Your task to perform on an android device: toggle pop-ups in chrome Image 0: 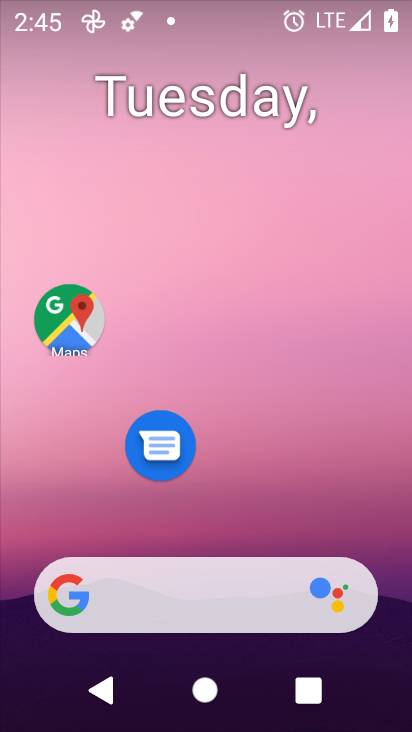
Step 0: drag from (239, 499) to (151, 102)
Your task to perform on an android device: toggle pop-ups in chrome Image 1: 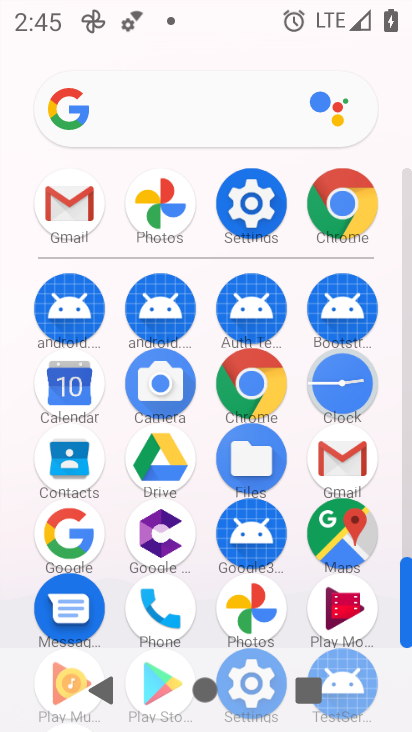
Step 1: click (341, 192)
Your task to perform on an android device: toggle pop-ups in chrome Image 2: 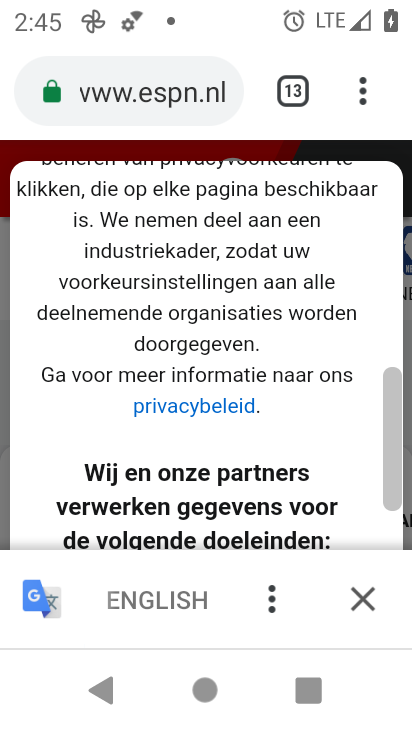
Step 2: click (359, 95)
Your task to perform on an android device: toggle pop-ups in chrome Image 3: 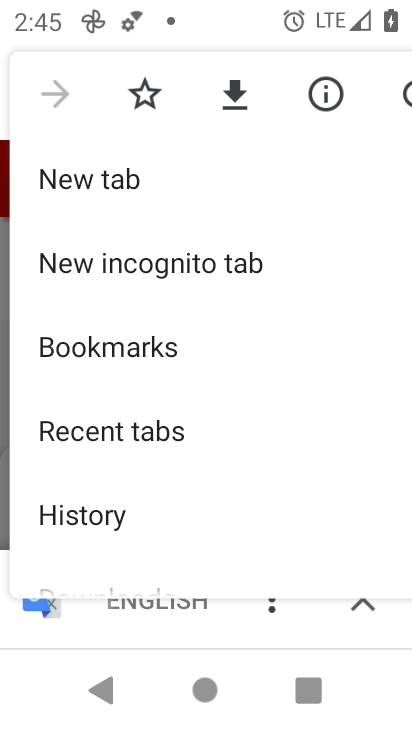
Step 3: drag from (251, 515) to (189, 231)
Your task to perform on an android device: toggle pop-ups in chrome Image 4: 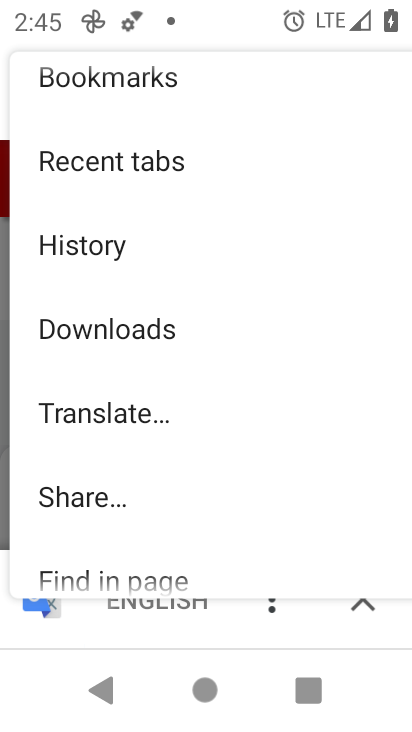
Step 4: drag from (214, 482) to (161, 182)
Your task to perform on an android device: toggle pop-ups in chrome Image 5: 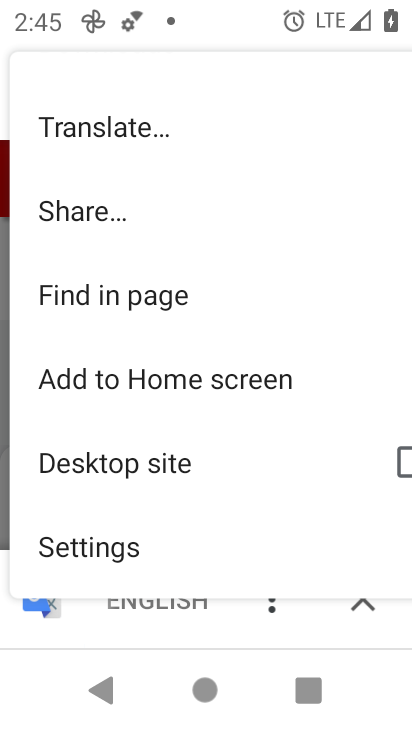
Step 5: click (93, 546)
Your task to perform on an android device: toggle pop-ups in chrome Image 6: 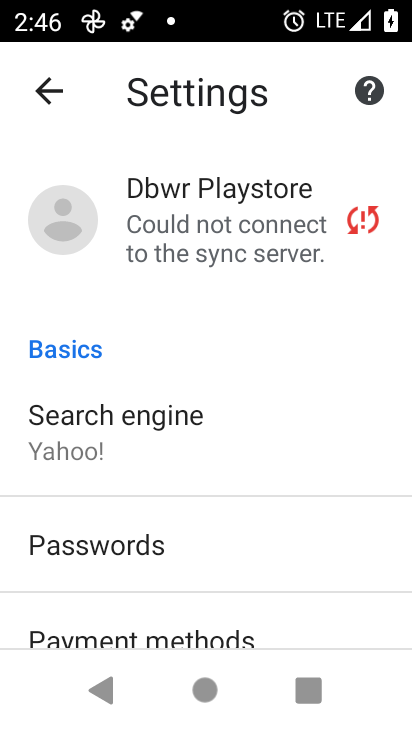
Step 6: drag from (218, 558) to (175, 190)
Your task to perform on an android device: toggle pop-ups in chrome Image 7: 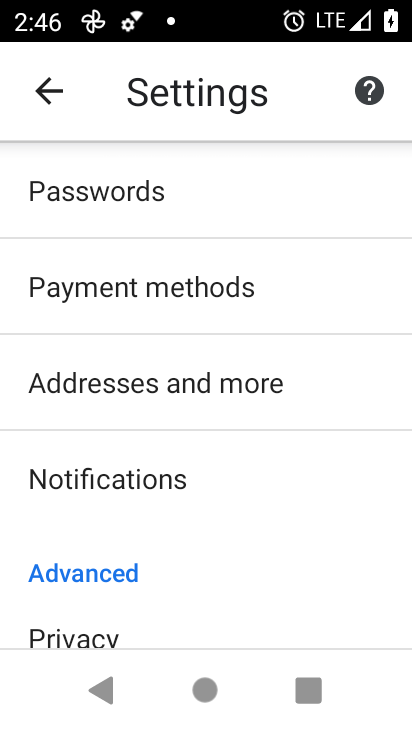
Step 7: drag from (221, 564) to (202, 297)
Your task to perform on an android device: toggle pop-ups in chrome Image 8: 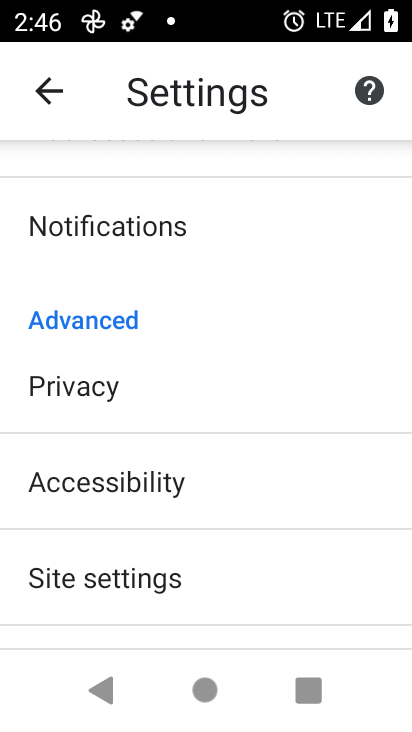
Step 8: click (136, 575)
Your task to perform on an android device: toggle pop-ups in chrome Image 9: 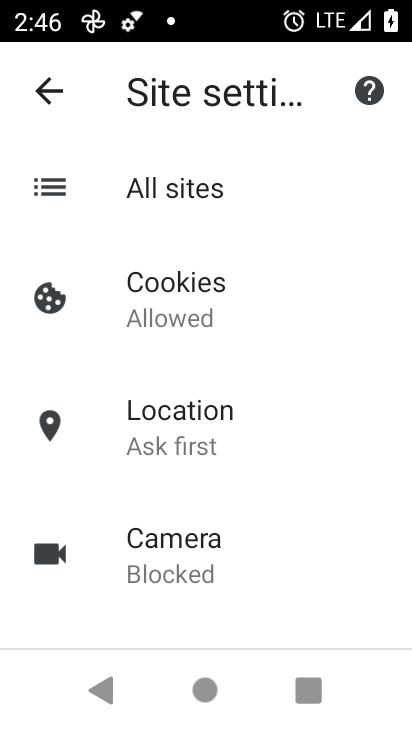
Step 9: drag from (294, 458) to (234, 155)
Your task to perform on an android device: toggle pop-ups in chrome Image 10: 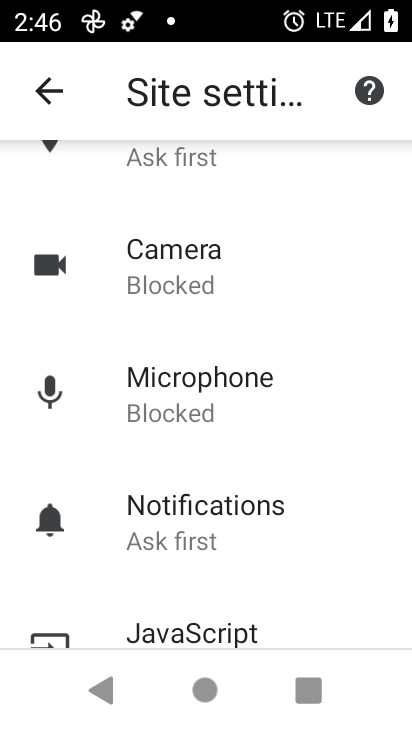
Step 10: drag from (277, 547) to (241, 263)
Your task to perform on an android device: toggle pop-ups in chrome Image 11: 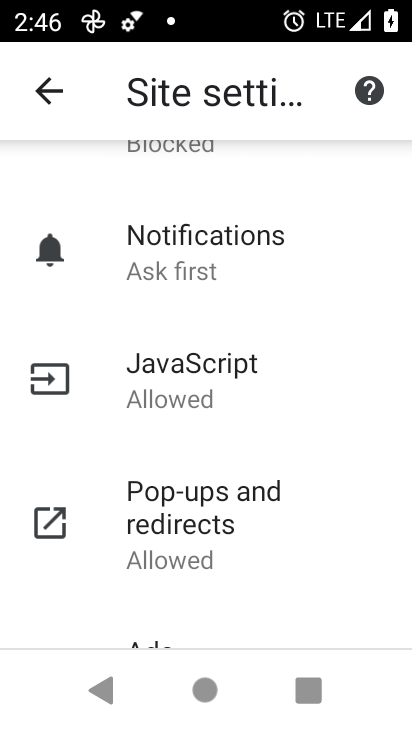
Step 11: click (174, 483)
Your task to perform on an android device: toggle pop-ups in chrome Image 12: 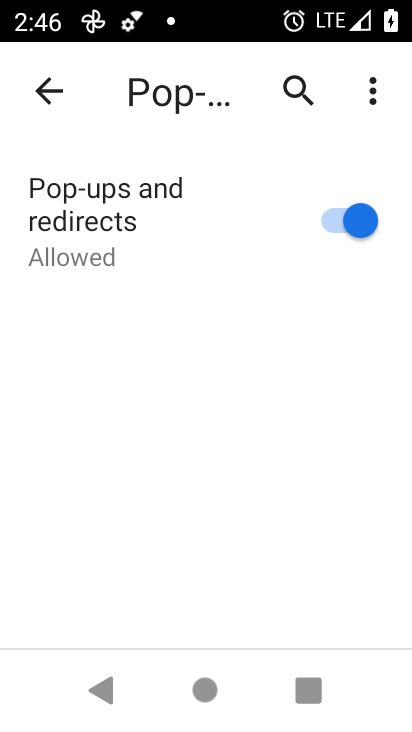
Step 12: click (365, 228)
Your task to perform on an android device: toggle pop-ups in chrome Image 13: 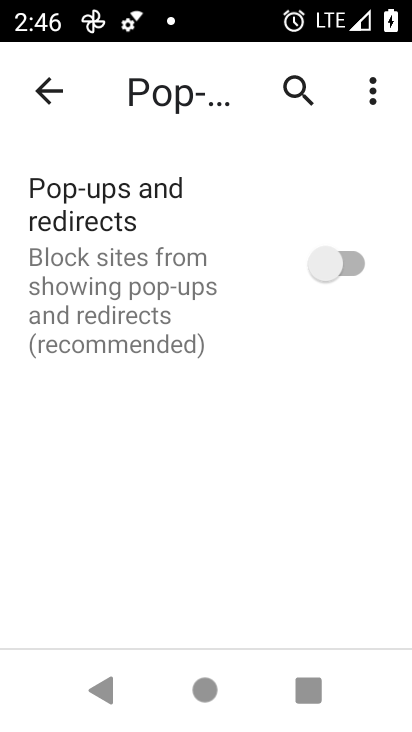
Step 13: task complete